Your task to perform on an android device: Do I have any events today? Image 0: 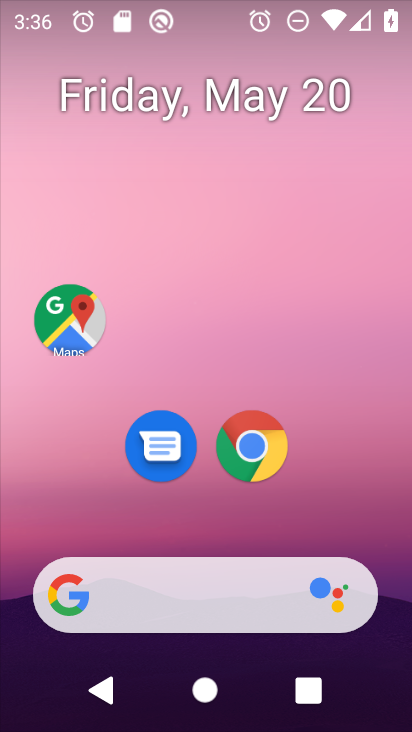
Step 0: drag from (380, 559) to (318, 1)
Your task to perform on an android device: Do I have any events today? Image 1: 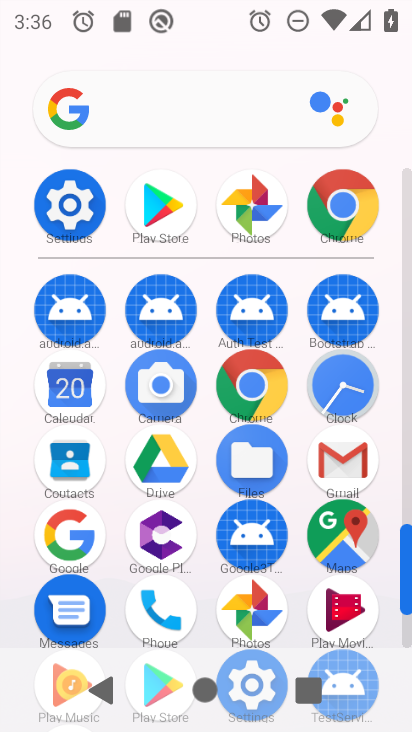
Step 1: click (67, 383)
Your task to perform on an android device: Do I have any events today? Image 2: 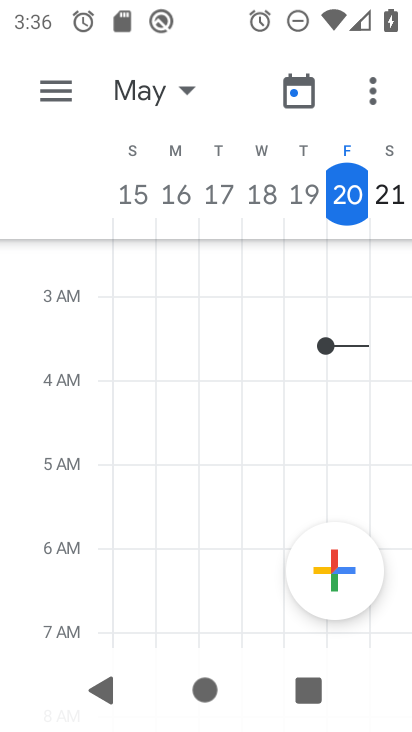
Step 2: click (61, 91)
Your task to perform on an android device: Do I have any events today? Image 3: 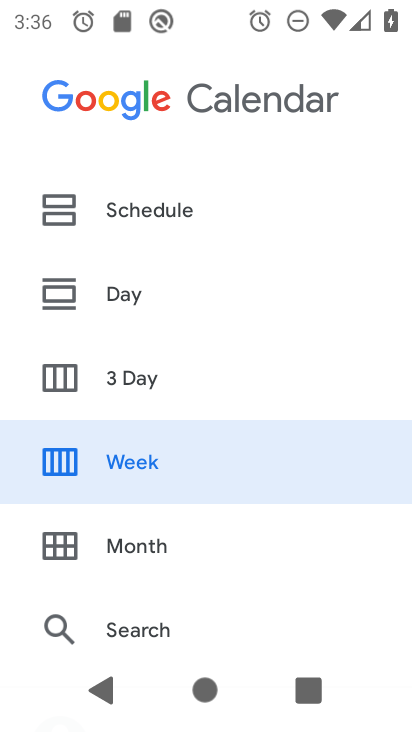
Step 3: click (124, 210)
Your task to perform on an android device: Do I have any events today? Image 4: 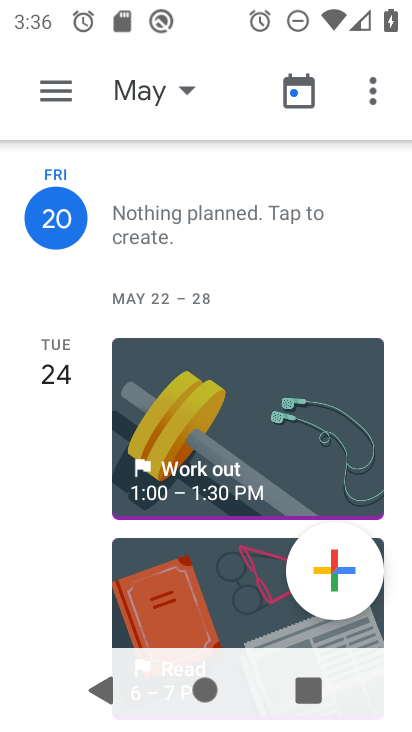
Step 4: click (166, 222)
Your task to perform on an android device: Do I have any events today? Image 5: 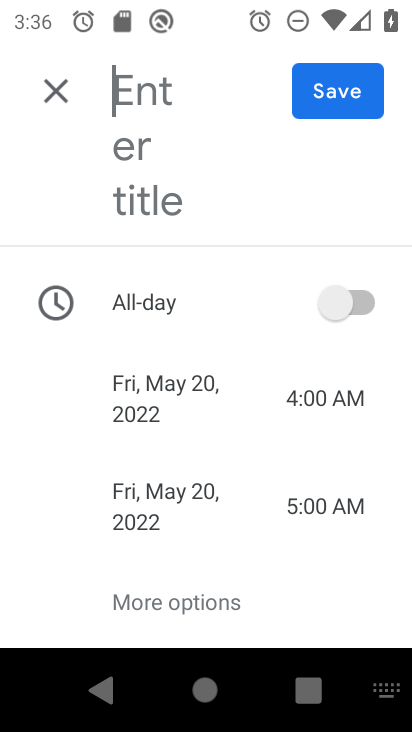
Step 5: task complete